Your task to perform on an android device: check data usage Image 0: 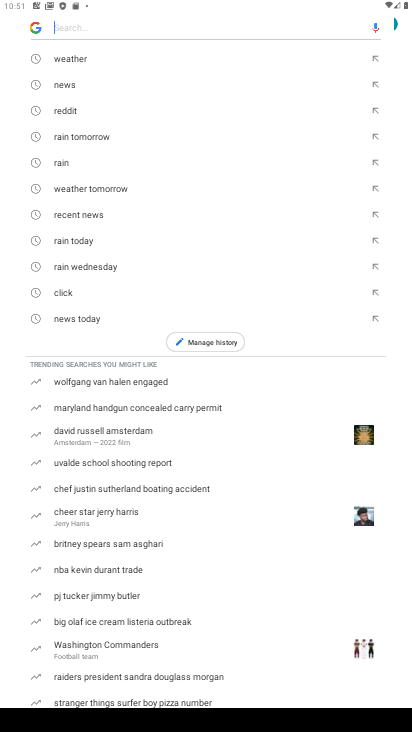
Step 0: press home button
Your task to perform on an android device: check data usage Image 1: 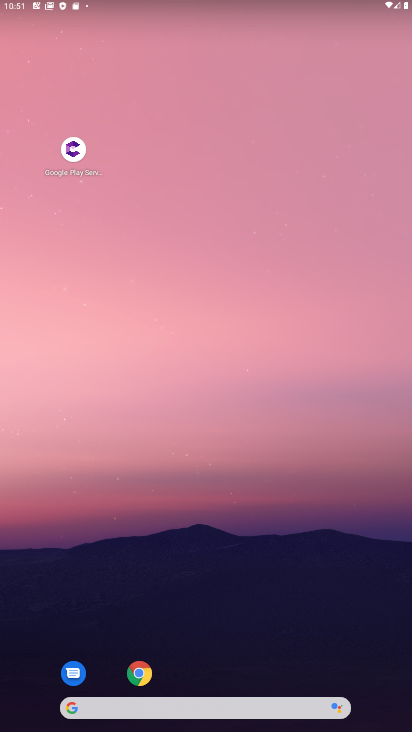
Step 1: drag from (207, 643) to (238, 31)
Your task to perform on an android device: check data usage Image 2: 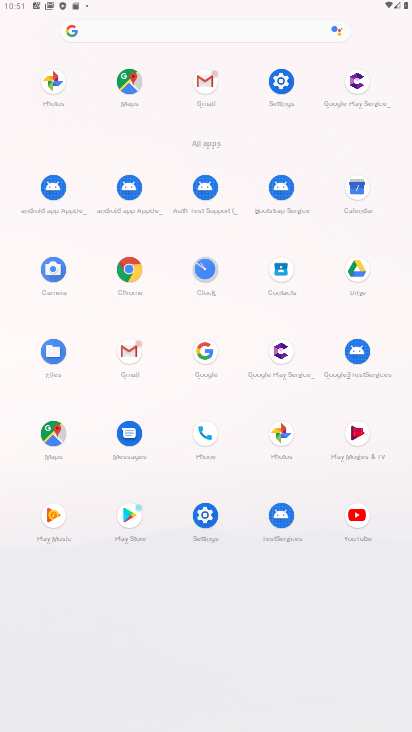
Step 2: click (283, 98)
Your task to perform on an android device: check data usage Image 3: 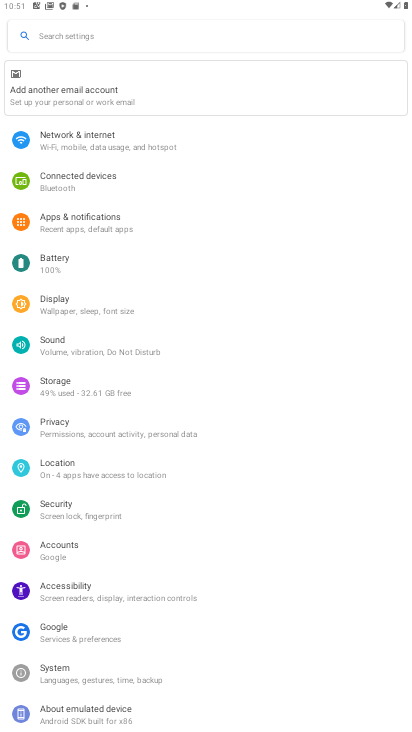
Step 3: click (100, 149)
Your task to perform on an android device: check data usage Image 4: 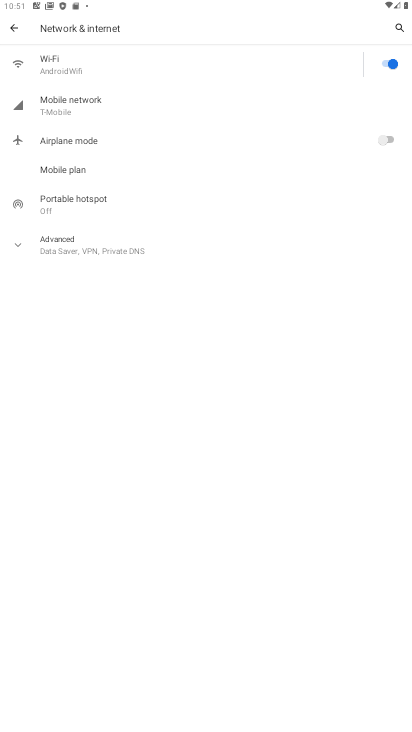
Step 4: click (115, 113)
Your task to perform on an android device: check data usage Image 5: 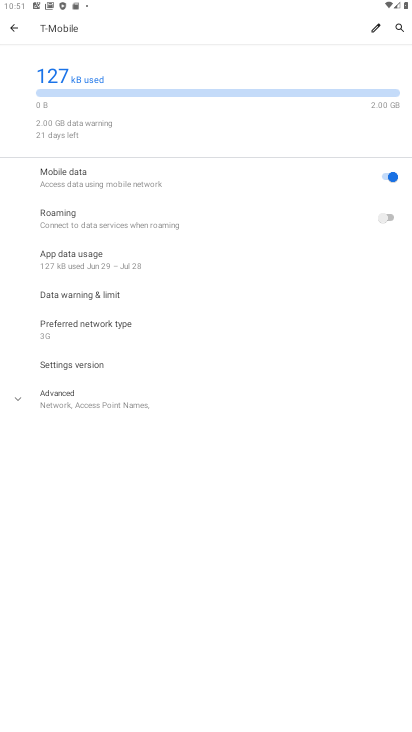
Step 5: click (100, 273)
Your task to perform on an android device: check data usage Image 6: 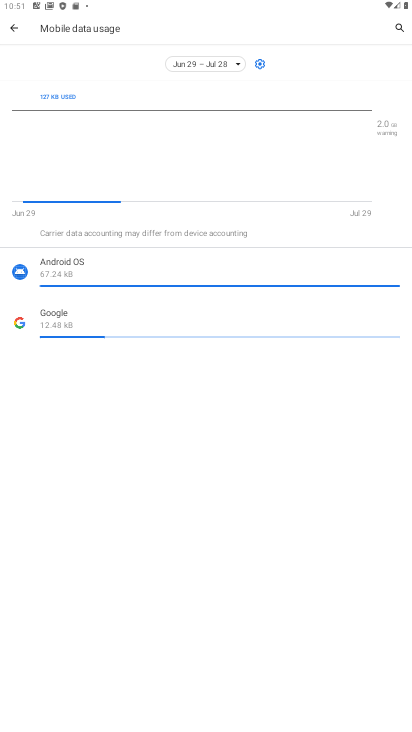
Step 6: task complete